Your task to perform on an android device: manage bookmarks in the chrome app Image 0: 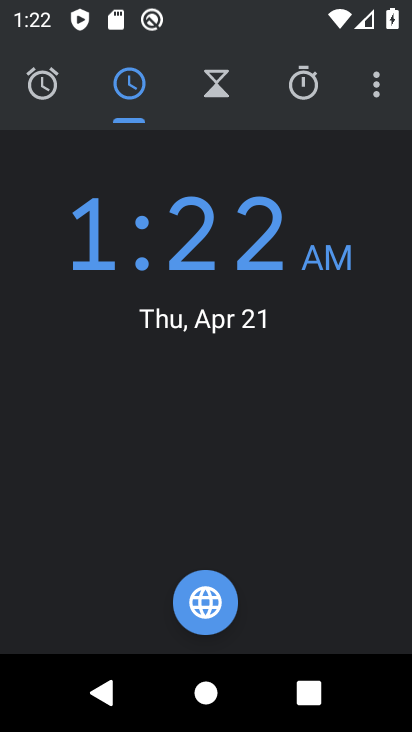
Step 0: click (49, 87)
Your task to perform on an android device: manage bookmarks in the chrome app Image 1: 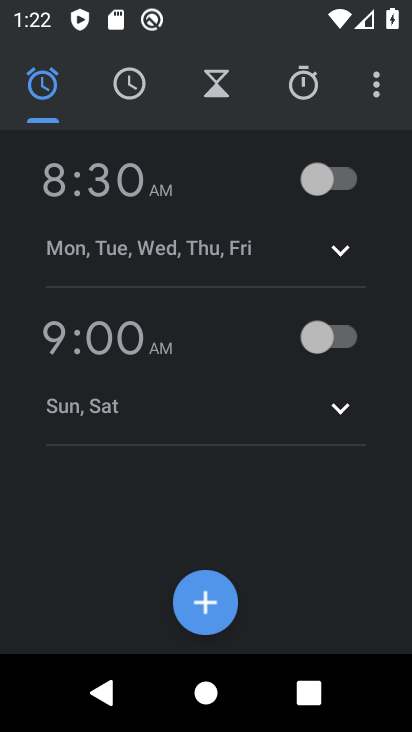
Step 1: press back button
Your task to perform on an android device: manage bookmarks in the chrome app Image 2: 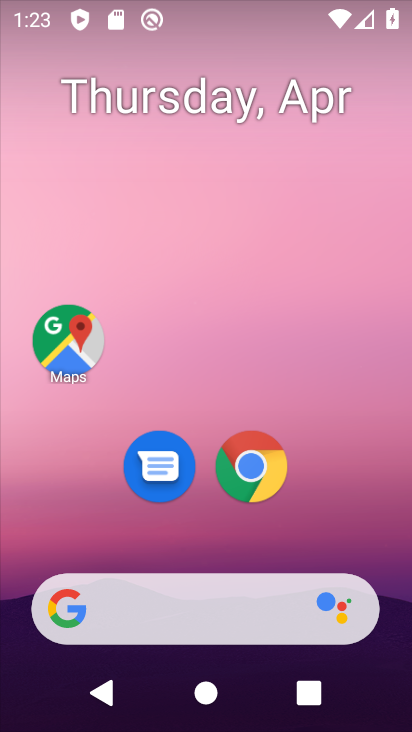
Step 2: click (250, 465)
Your task to perform on an android device: manage bookmarks in the chrome app Image 3: 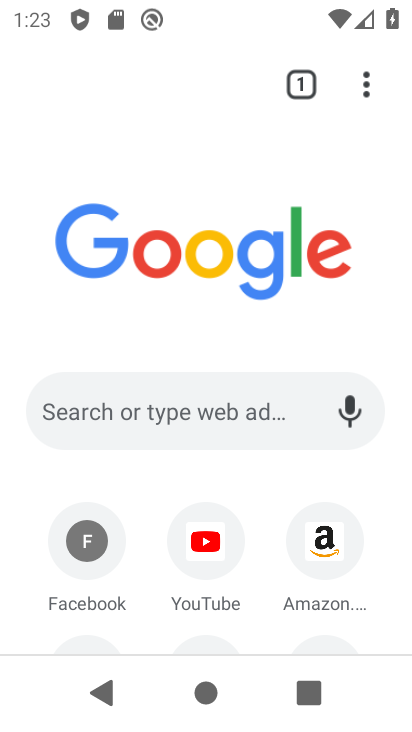
Step 3: task complete